Your task to perform on an android device: toggle priority inbox in the gmail app Image 0: 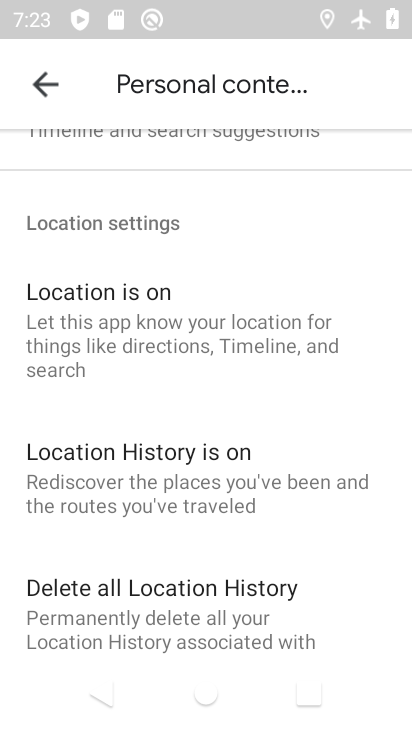
Step 0: press home button
Your task to perform on an android device: toggle priority inbox in the gmail app Image 1: 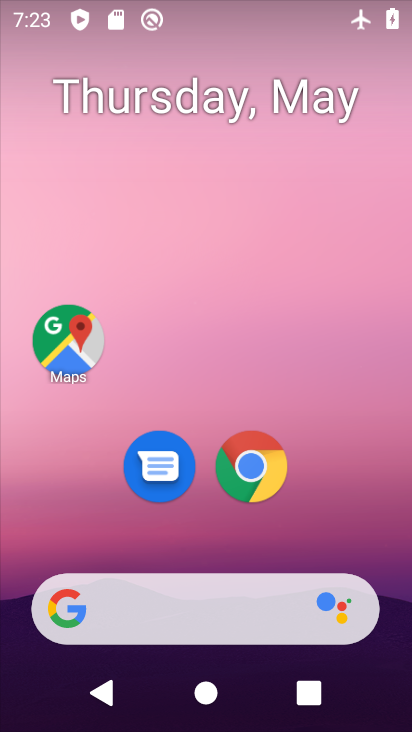
Step 1: drag from (353, 508) to (229, 68)
Your task to perform on an android device: toggle priority inbox in the gmail app Image 2: 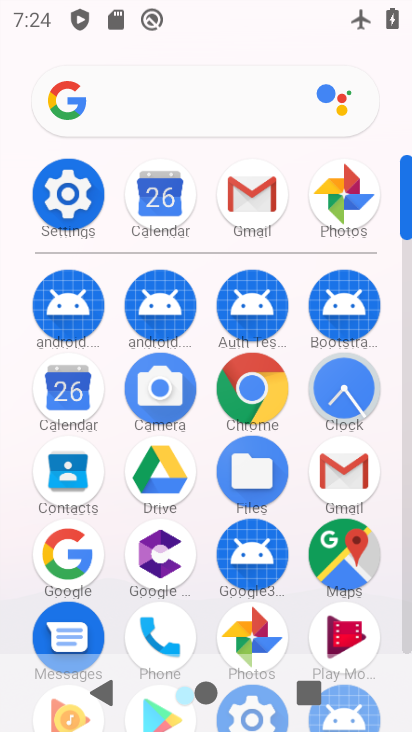
Step 2: click (258, 192)
Your task to perform on an android device: toggle priority inbox in the gmail app Image 3: 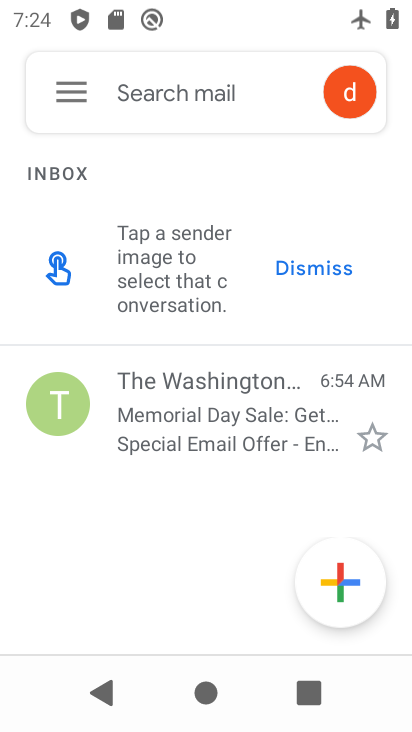
Step 3: click (74, 90)
Your task to perform on an android device: toggle priority inbox in the gmail app Image 4: 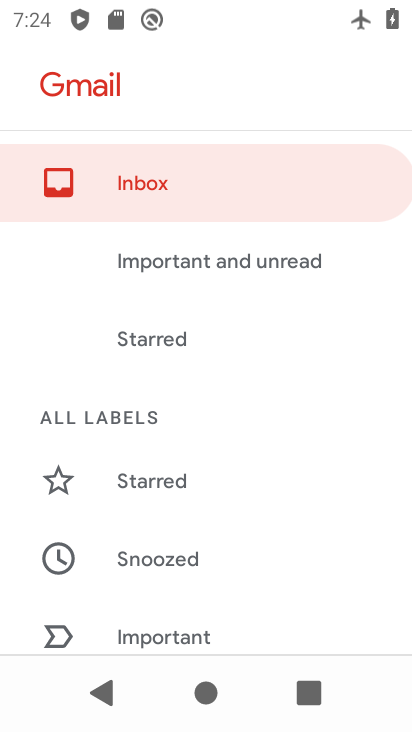
Step 4: drag from (262, 556) to (240, 298)
Your task to perform on an android device: toggle priority inbox in the gmail app Image 5: 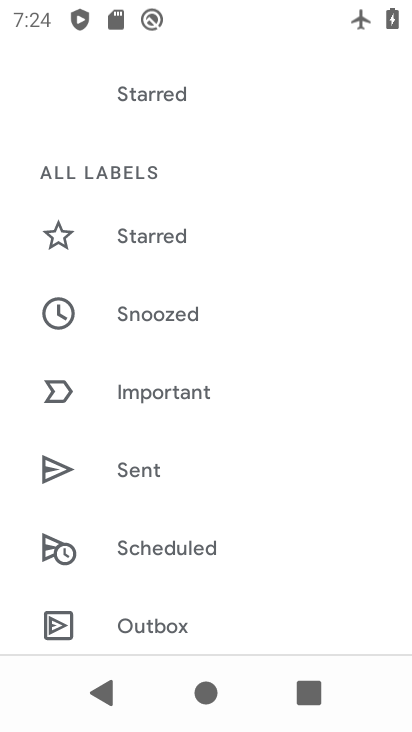
Step 5: drag from (253, 535) to (230, 244)
Your task to perform on an android device: toggle priority inbox in the gmail app Image 6: 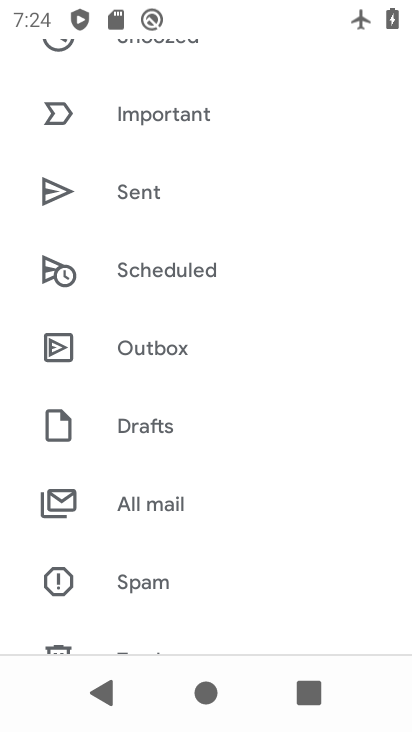
Step 6: drag from (250, 537) to (215, 243)
Your task to perform on an android device: toggle priority inbox in the gmail app Image 7: 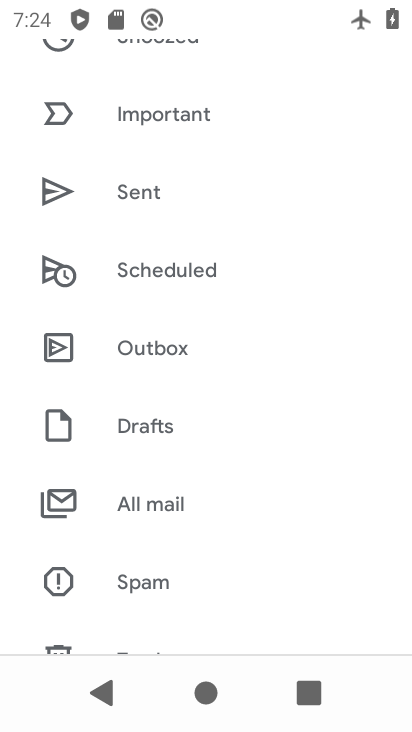
Step 7: drag from (239, 575) to (206, 268)
Your task to perform on an android device: toggle priority inbox in the gmail app Image 8: 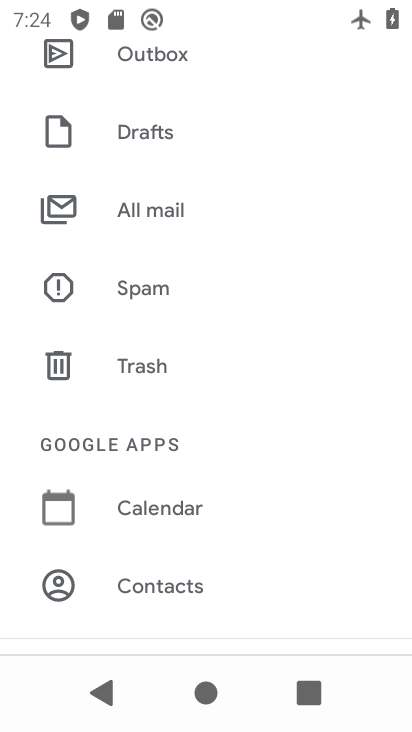
Step 8: drag from (257, 513) to (244, 232)
Your task to perform on an android device: toggle priority inbox in the gmail app Image 9: 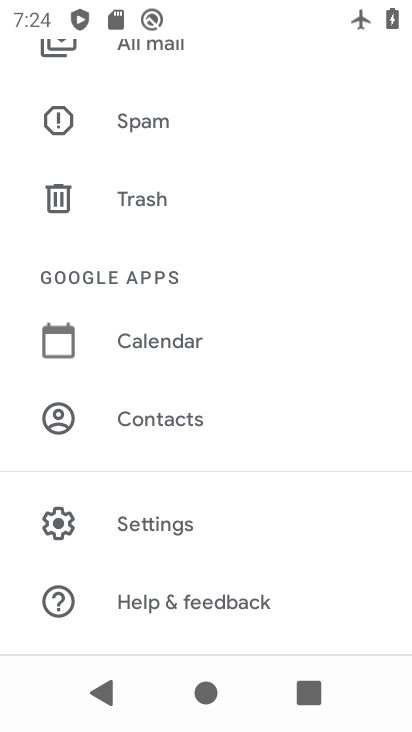
Step 9: click (152, 523)
Your task to perform on an android device: toggle priority inbox in the gmail app Image 10: 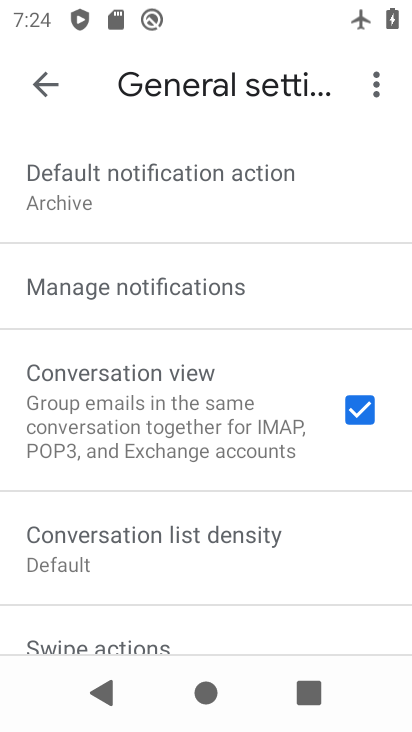
Step 10: click (44, 84)
Your task to perform on an android device: toggle priority inbox in the gmail app Image 11: 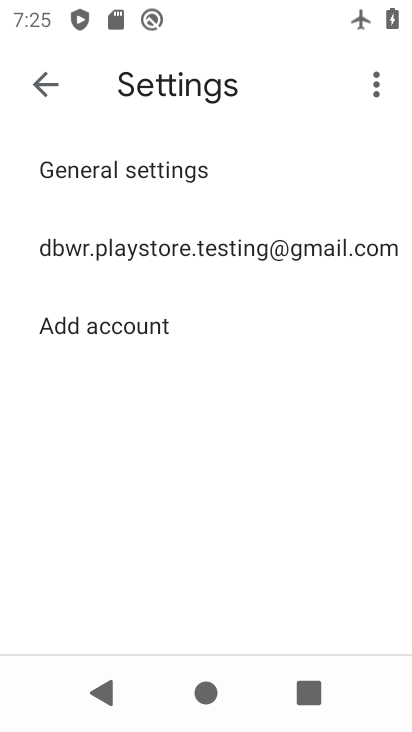
Step 11: click (129, 254)
Your task to perform on an android device: toggle priority inbox in the gmail app Image 12: 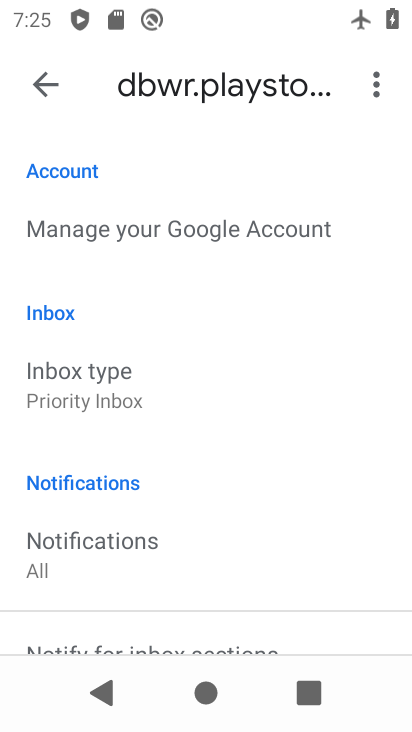
Step 12: click (103, 378)
Your task to perform on an android device: toggle priority inbox in the gmail app Image 13: 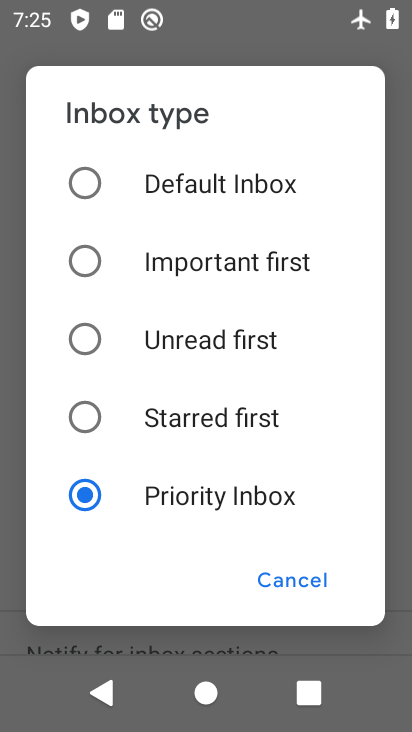
Step 13: click (84, 188)
Your task to perform on an android device: toggle priority inbox in the gmail app Image 14: 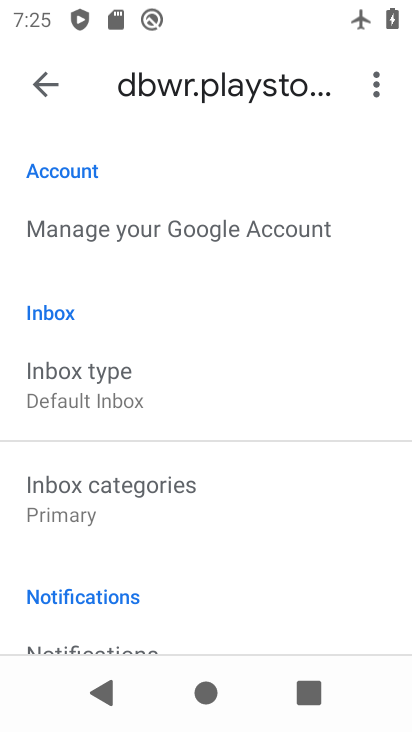
Step 14: task complete